Your task to perform on an android device: delete the emails in spam in the gmail app Image 0: 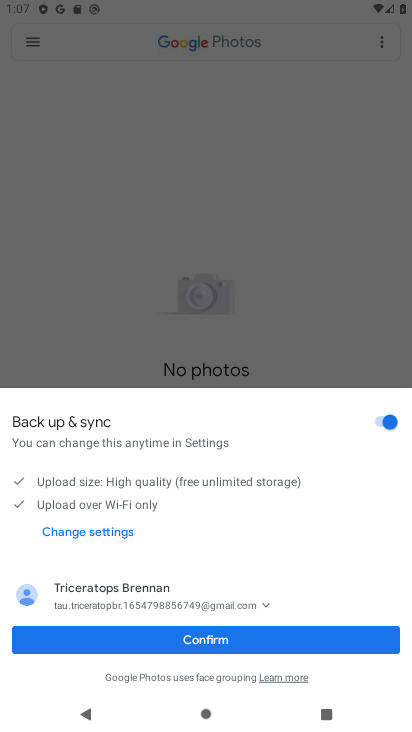
Step 0: click (353, 635)
Your task to perform on an android device: delete the emails in spam in the gmail app Image 1: 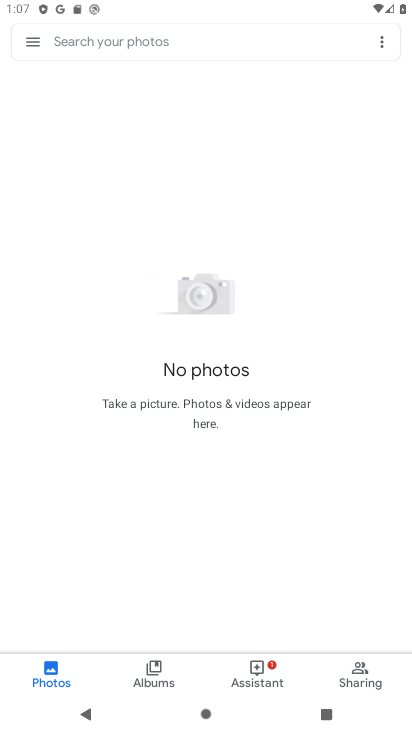
Step 1: press home button
Your task to perform on an android device: delete the emails in spam in the gmail app Image 2: 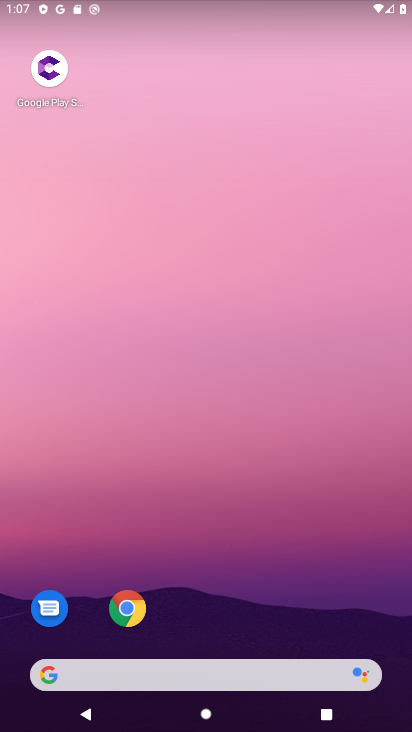
Step 2: drag from (308, 614) to (192, 82)
Your task to perform on an android device: delete the emails in spam in the gmail app Image 3: 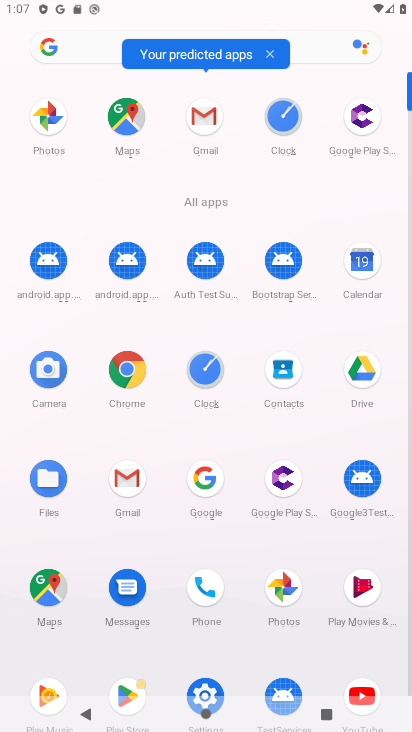
Step 3: click (207, 125)
Your task to perform on an android device: delete the emails in spam in the gmail app Image 4: 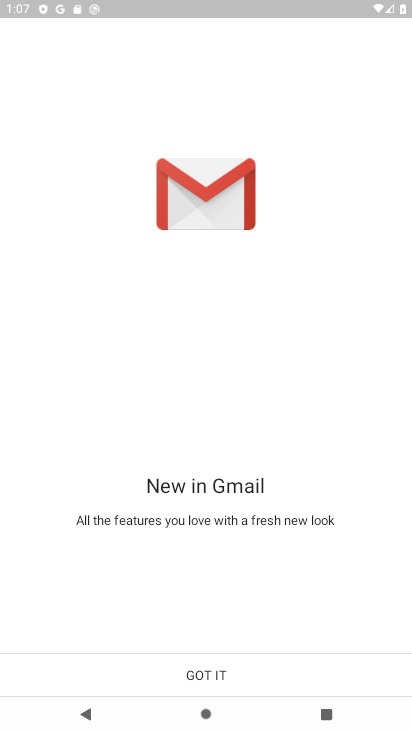
Step 4: click (219, 684)
Your task to perform on an android device: delete the emails in spam in the gmail app Image 5: 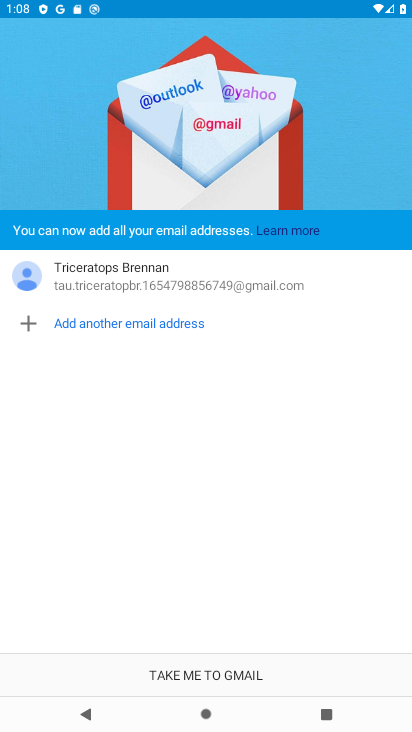
Step 5: click (219, 684)
Your task to perform on an android device: delete the emails in spam in the gmail app Image 6: 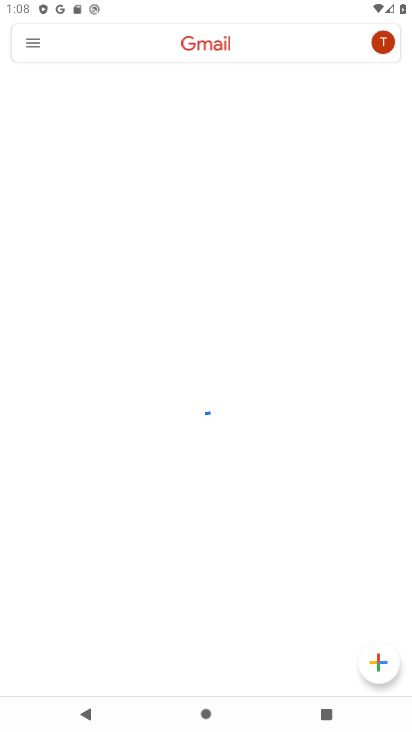
Step 6: click (38, 42)
Your task to perform on an android device: delete the emails in spam in the gmail app Image 7: 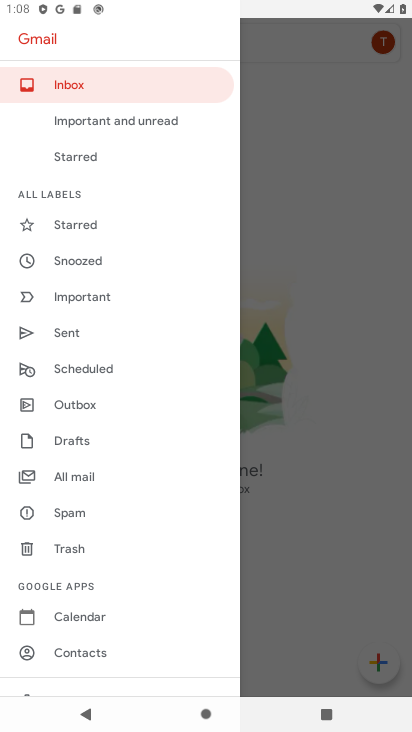
Step 7: click (99, 509)
Your task to perform on an android device: delete the emails in spam in the gmail app Image 8: 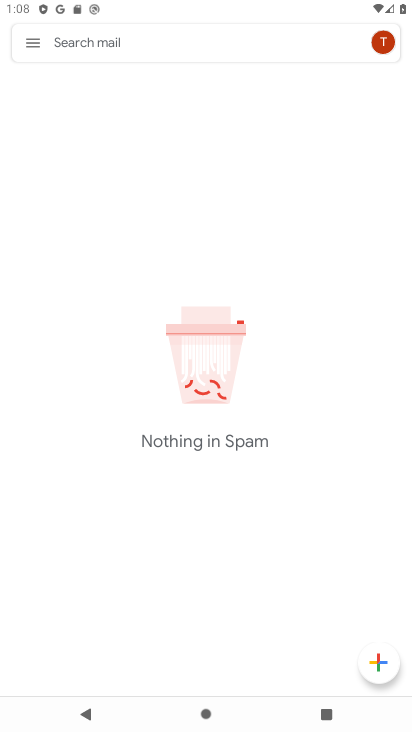
Step 8: task complete